Your task to perform on an android device: Open notification settings Image 0: 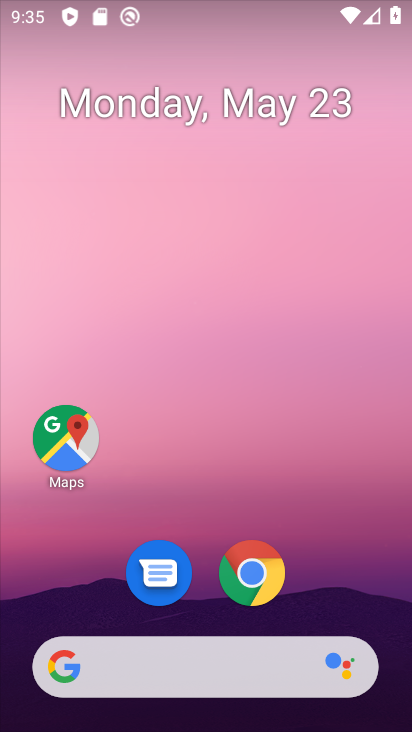
Step 0: drag from (220, 632) to (201, 190)
Your task to perform on an android device: Open notification settings Image 1: 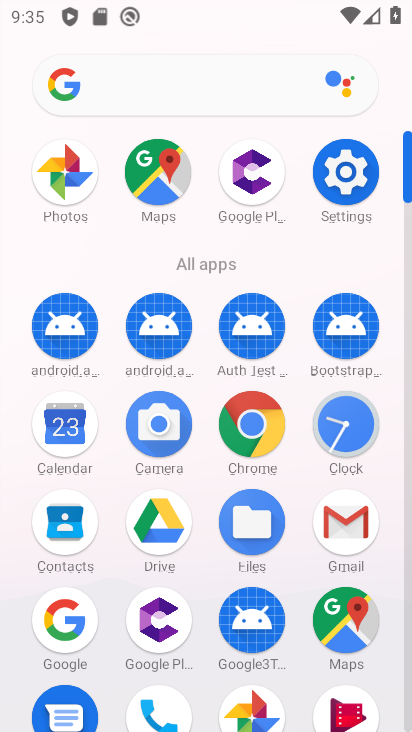
Step 1: click (345, 177)
Your task to perform on an android device: Open notification settings Image 2: 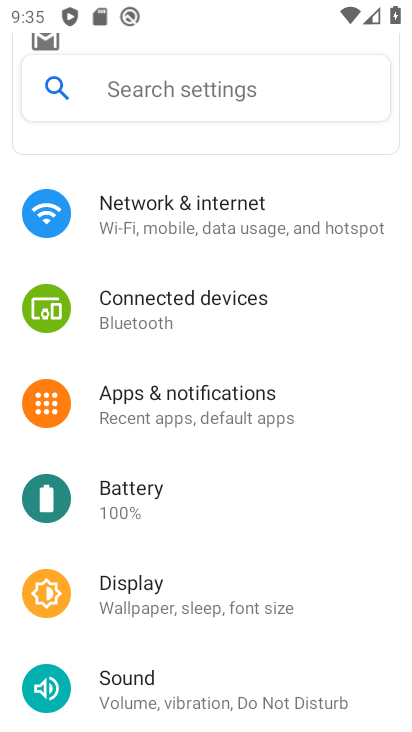
Step 2: click (243, 405)
Your task to perform on an android device: Open notification settings Image 3: 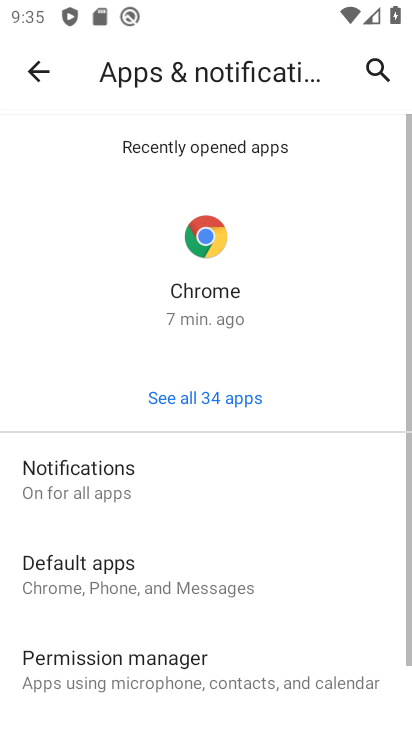
Step 3: drag from (242, 622) to (198, 107)
Your task to perform on an android device: Open notification settings Image 4: 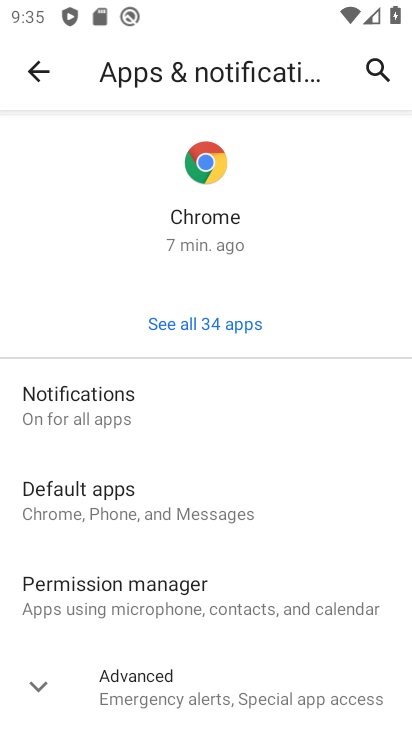
Step 4: click (180, 699)
Your task to perform on an android device: Open notification settings Image 5: 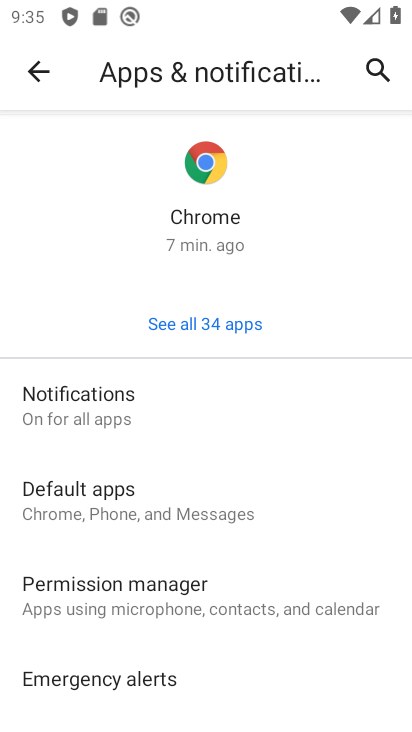
Step 5: task complete